Your task to perform on an android device: open app "WhatsApp Messenger" (install if not already installed) Image 0: 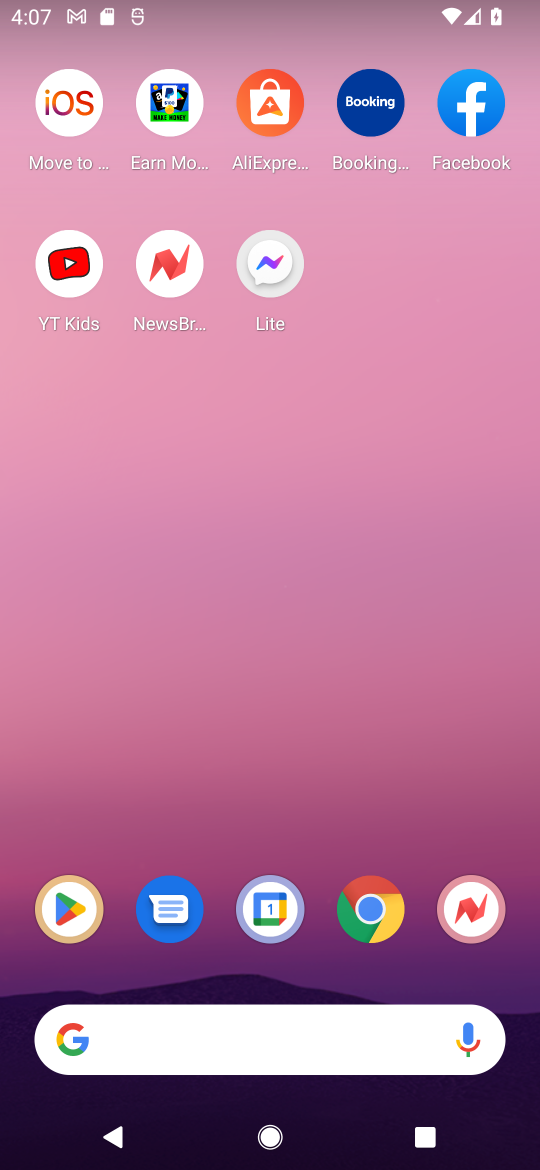
Step 0: click (71, 922)
Your task to perform on an android device: open app "WhatsApp Messenger" (install if not already installed) Image 1: 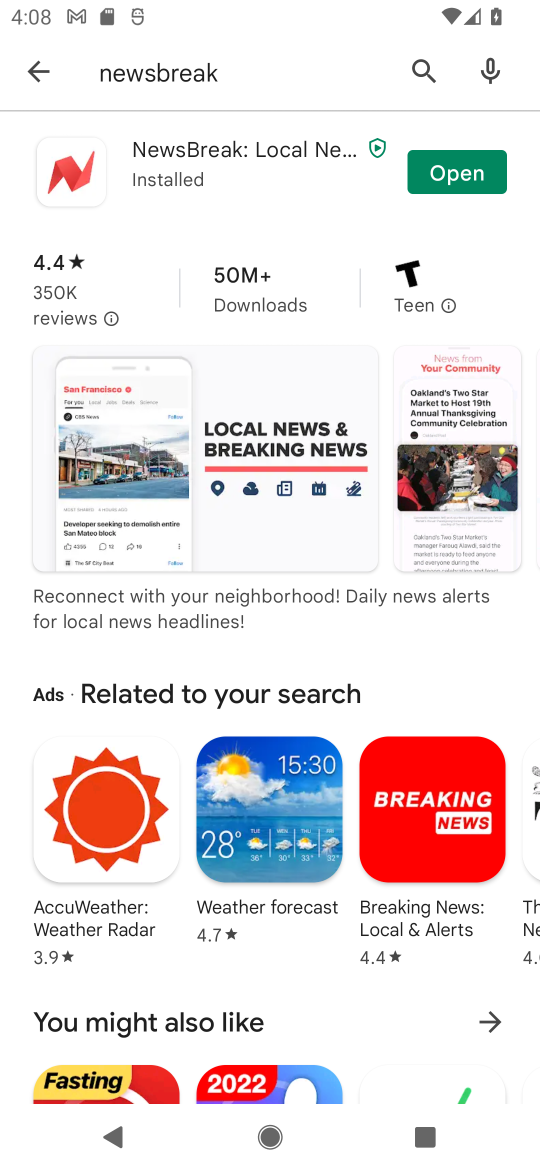
Step 1: click (184, 80)
Your task to perform on an android device: open app "WhatsApp Messenger" (install if not already installed) Image 2: 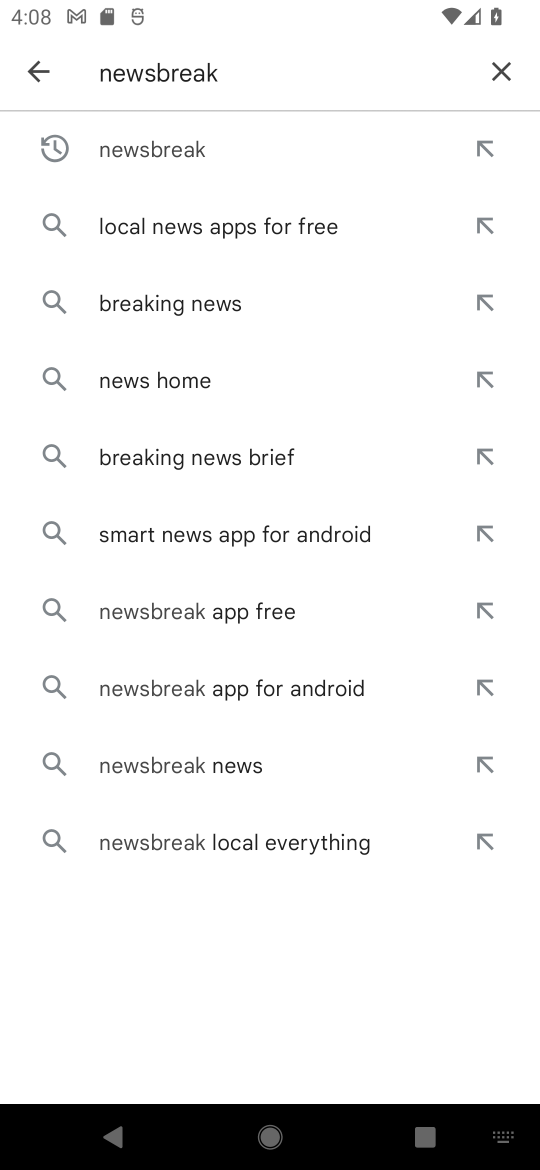
Step 2: click (508, 77)
Your task to perform on an android device: open app "WhatsApp Messenger" (install if not already installed) Image 3: 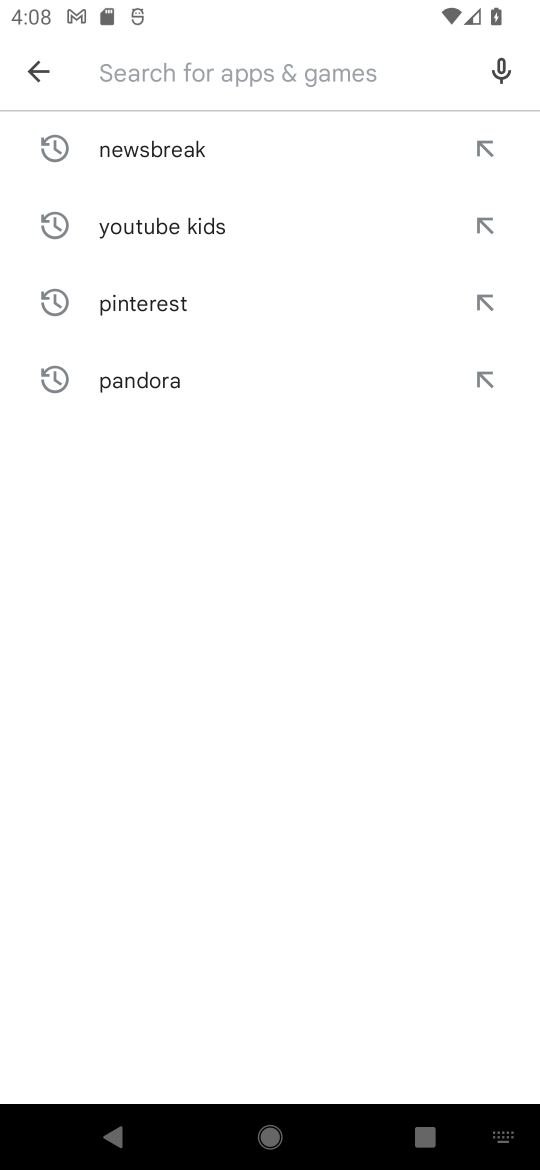
Step 3: type "whatsapp messenger"
Your task to perform on an android device: open app "WhatsApp Messenger" (install if not already installed) Image 4: 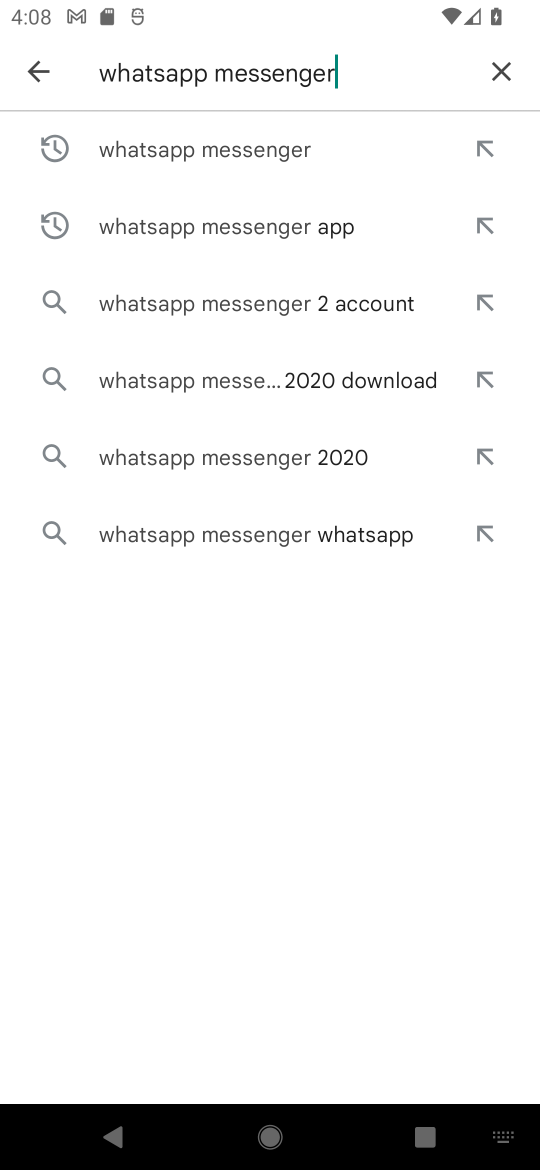
Step 4: click (263, 159)
Your task to perform on an android device: open app "WhatsApp Messenger" (install if not already installed) Image 5: 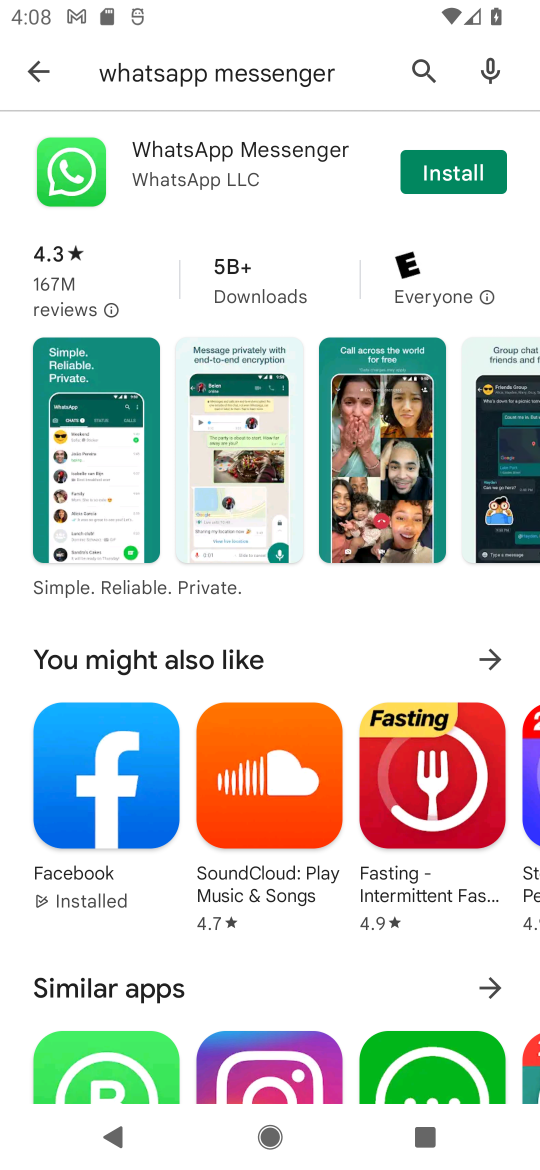
Step 5: click (433, 179)
Your task to perform on an android device: open app "WhatsApp Messenger" (install if not already installed) Image 6: 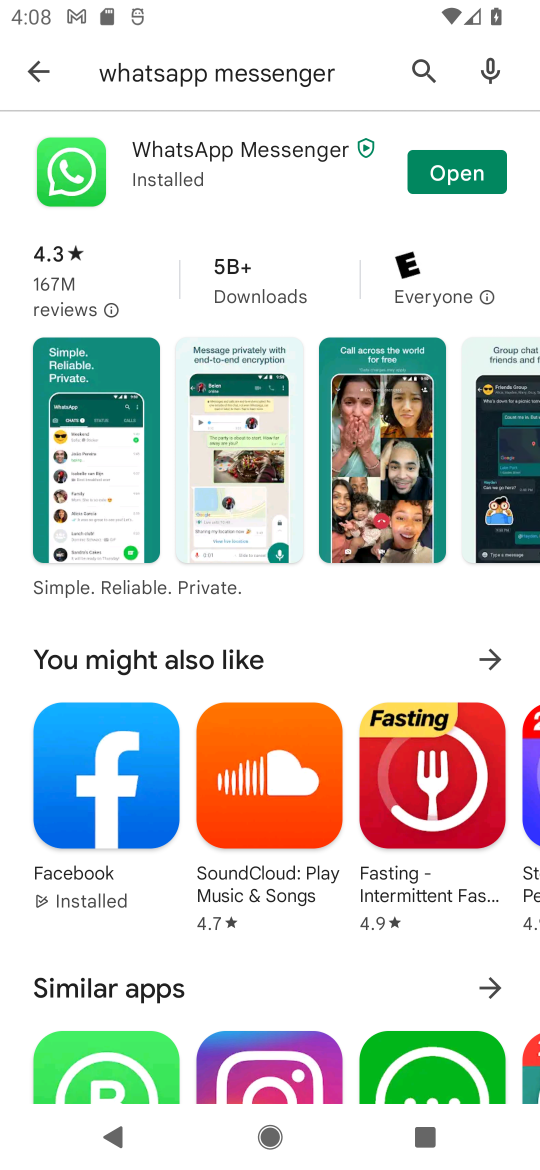
Step 6: click (454, 162)
Your task to perform on an android device: open app "WhatsApp Messenger" (install if not already installed) Image 7: 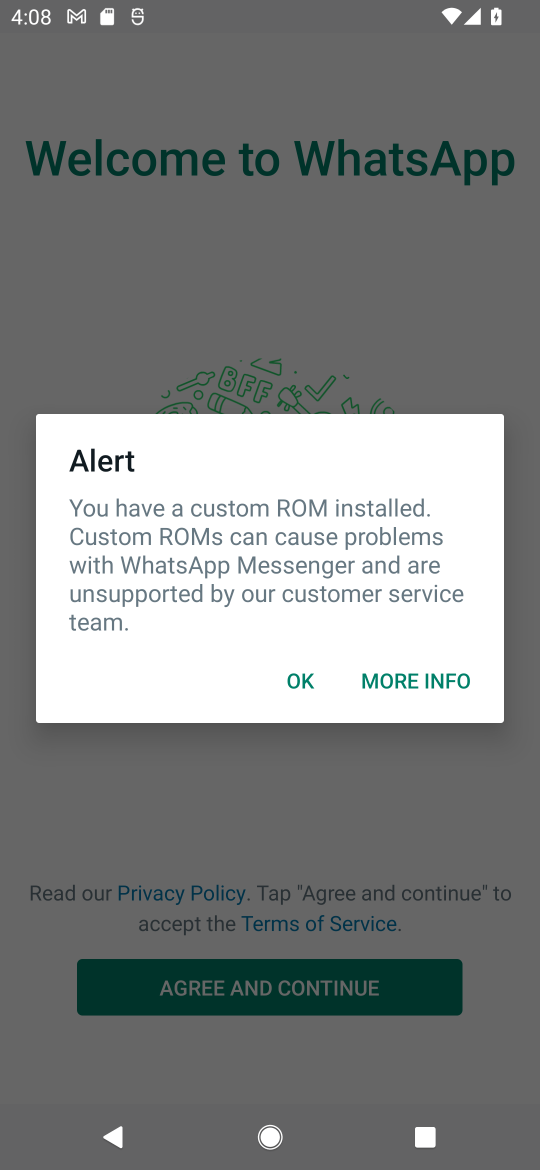
Step 7: click (302, 684)
Your task to perform on an android device: open app "WhatsApp Messenger" (install if not already installed) Image 8: 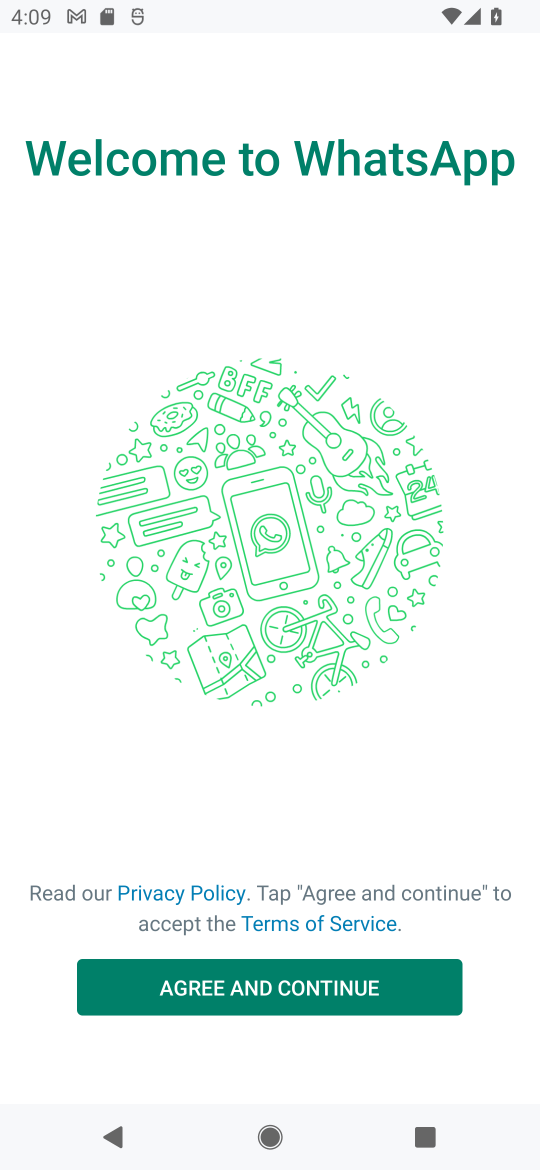
Step 8: click (269, 990)
Your task to perform on an android device: open app "WhatsApp Messenger" (install if not already installed) Image 9: 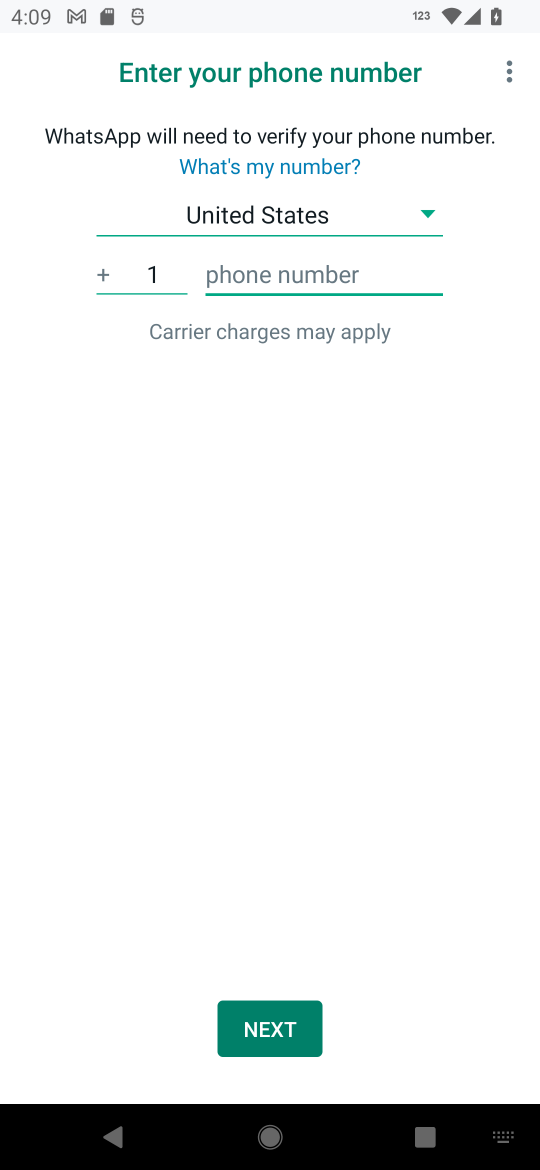
Step 9: task complete